Your task to perform on an android device: open a bookmark in the chrome app Image 0: 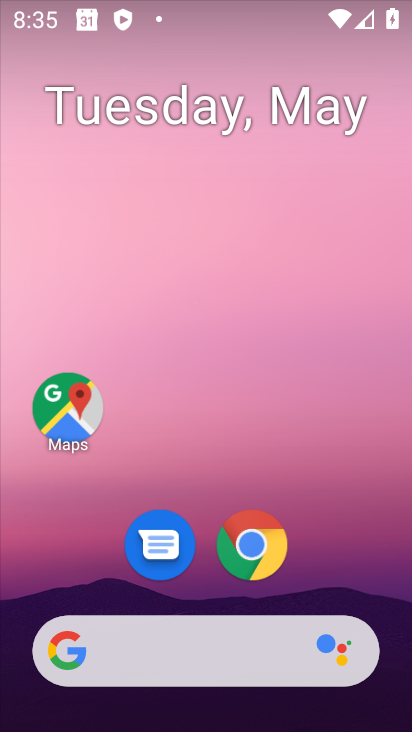
Step 0: drag from (395, 574) to (359, 171)
Your task to perform on an android device: open a bookmark in the chrome app Image 1: 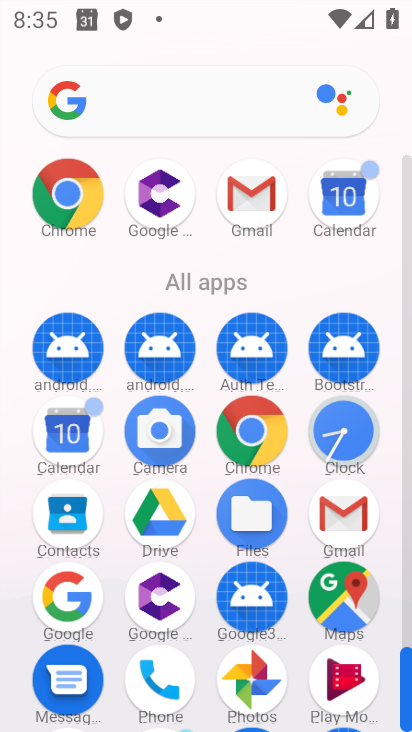
Step 1: click (264, 439)
Your task to perform on an android device: open a bookmark in the chrome app Image 2: 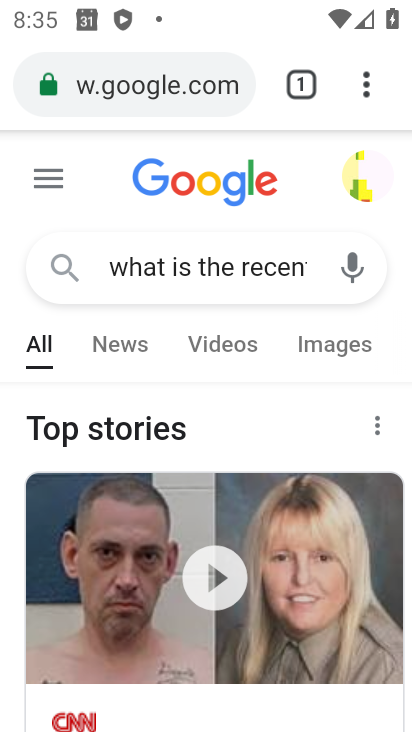
Step 2: task complete